Your task to perform on an android device: find snoozed emails in the gmail app Image 0: 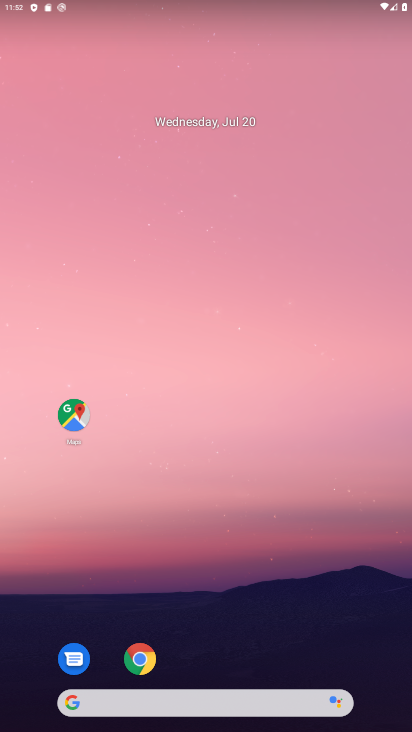
Step 0: drag from (295, 578) to (236, 84)
Your task to perform on an android device: find snoozed emails in the gmail app Image 1: 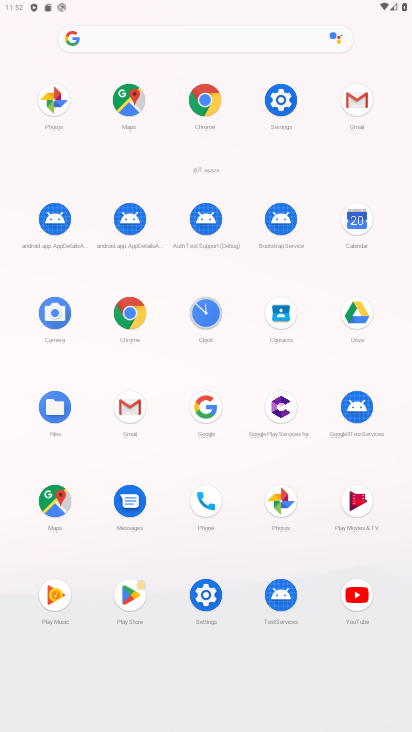
Step 1: click (356, 98)
Your task to perform on an android device: find snoozed emails in the gmail app Image 2: 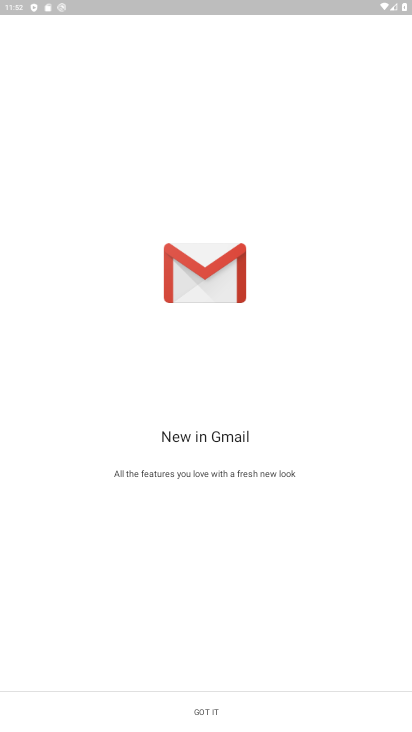
Step 2: click (226, 706)
Your task to perform on an android device: find snoozed emails in the gmail app Image 3: 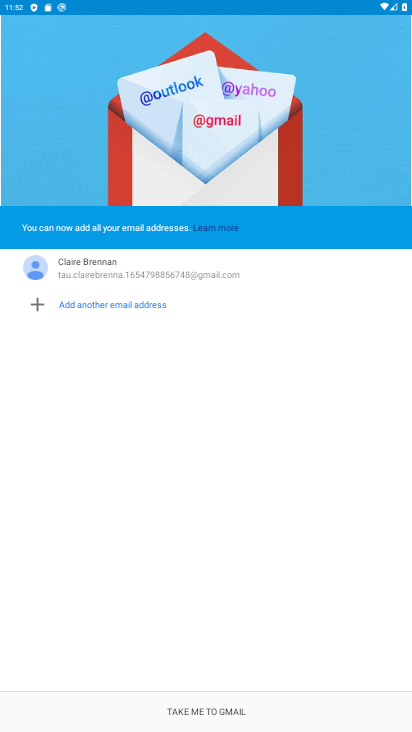
Step 3: click (228, 707)
Your task to perform on an android device: find snoozed emails in the gmail app Image 4: 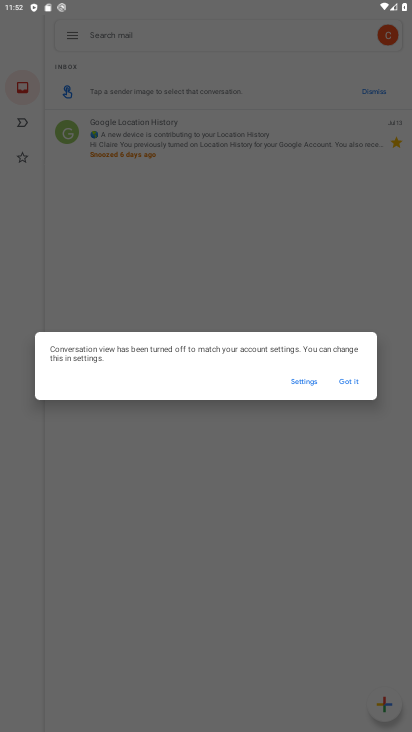
Step 4: click (351, 382)
Your task to perform on an android device: find snoozed emails in the gmail app Image 5: 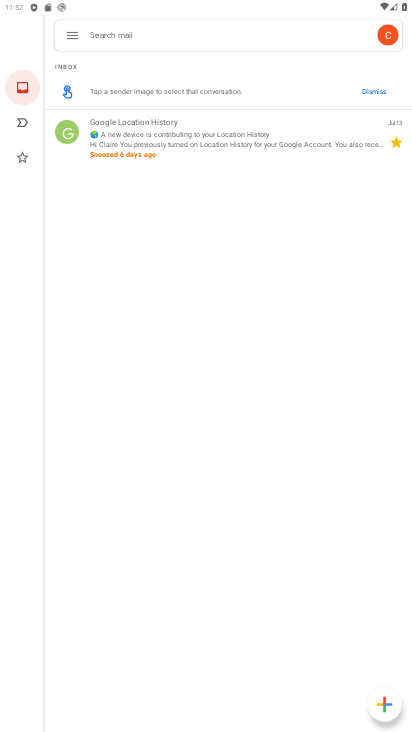
Step 5: click (69, 31)
Your task to perform on an android device: find snoozed emails in the gmail app Image 6: 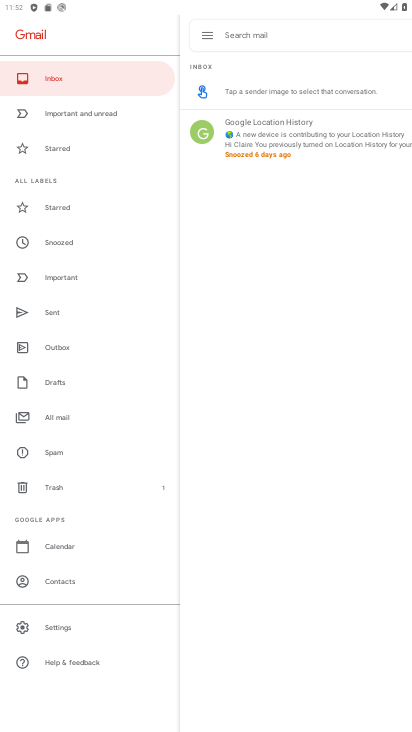
Step 6: click (65, 246)
Your task to perform on an android device: find snoozed emails in the gmail app Image 7: 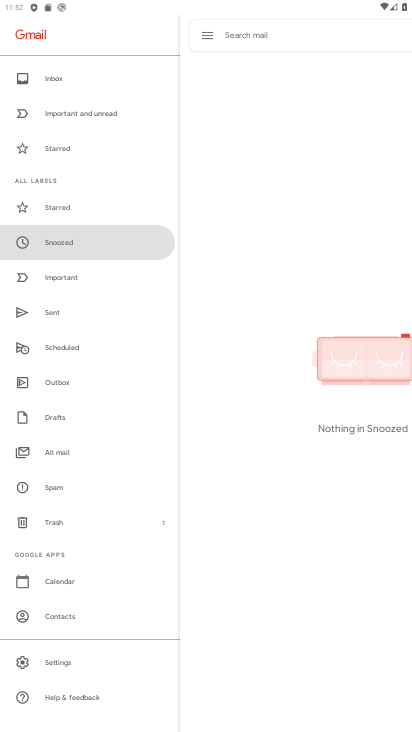
Step 7: task complete